Your task to perform on an android device: check google app version Image 0: 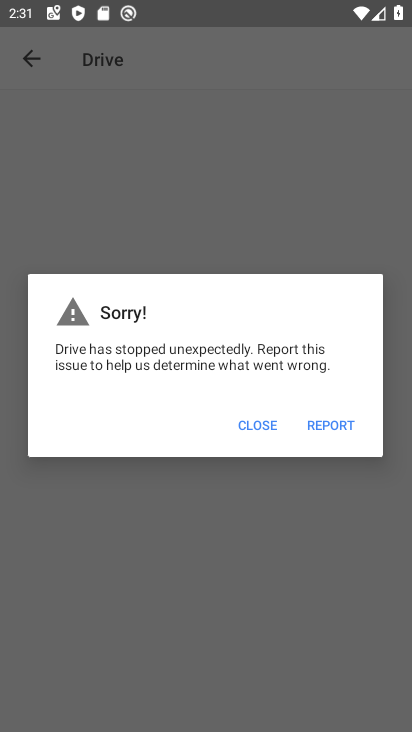
Step 0: press home button
Your task to perform on an android device: check google app version Image 1: 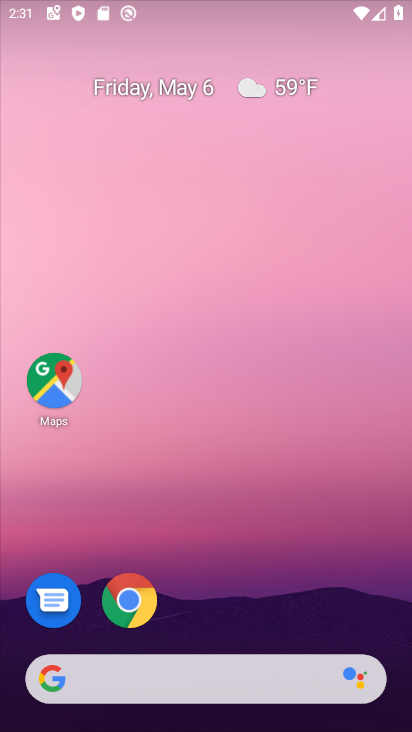
Step 1: drag from (247, 598) to (284, 83)
Your task to perform on an android device: check google app version Image 2: 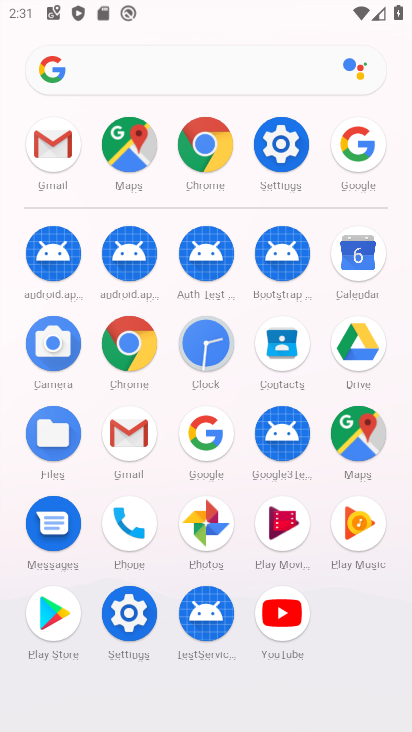
Step 2: click (207, 435)
Your task to perform on an android device: check google app version Image 3: 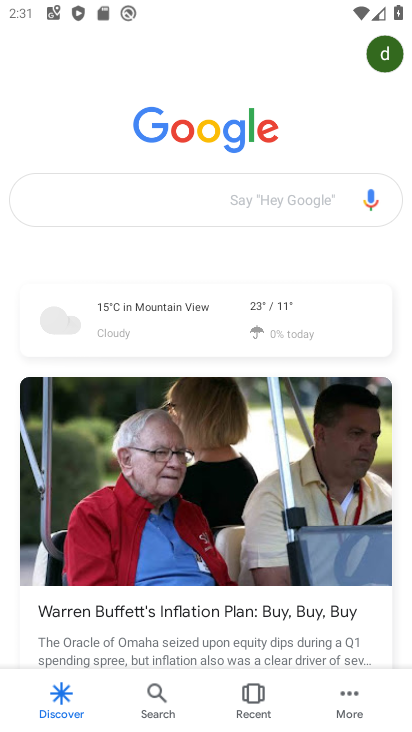
Step 3: click (351, 693)
Your task to perform on an android device: check google app version Image 4: 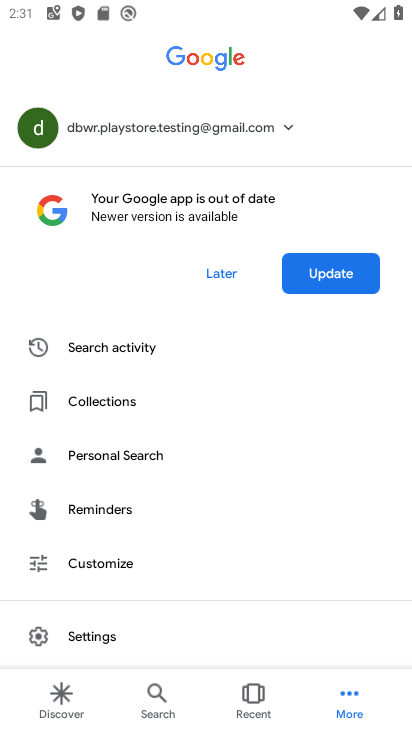
Step 4: drag from (178, 533) to (211, 111)
Your task to perform on an android device: check google app version Image 5: 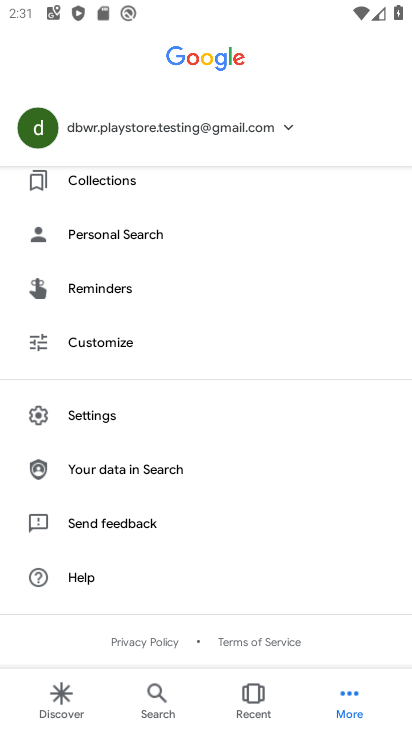
Step 5: click (99, 414)
Your task to perform on an android device: check google app version Image 6: 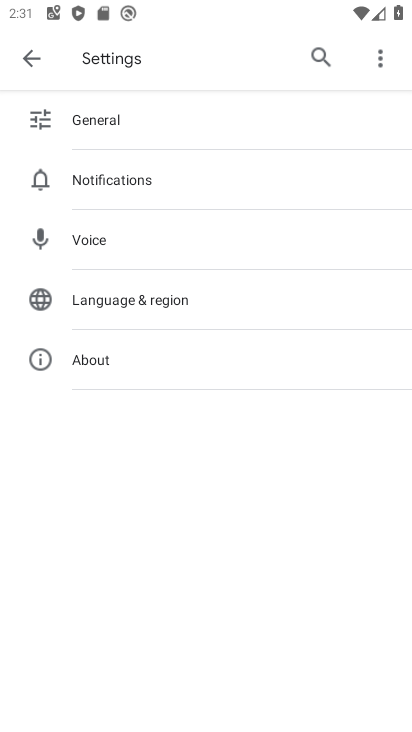
Step 6: click (106, 376)
Your task to perform on an android device: check google app version Image 7: 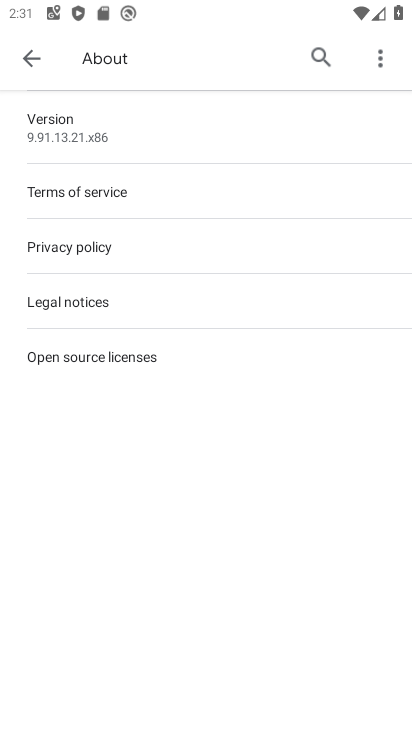
Step 7: click (98, 135)
Your task to perform on an android device: check google app version Image 8: 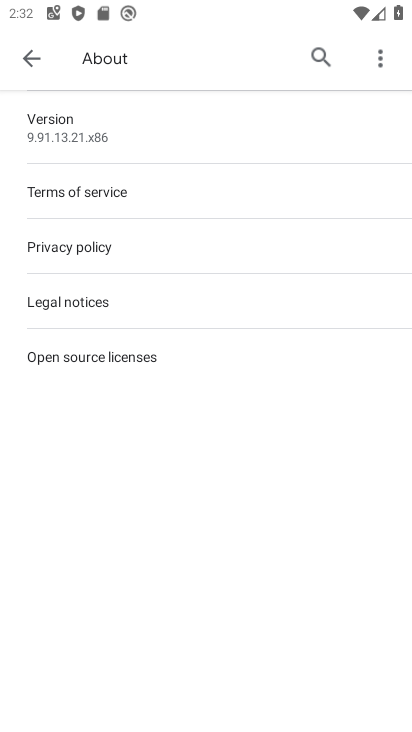
Step 8: task complete